Your task to perform on an android device: Open the map Image 0: 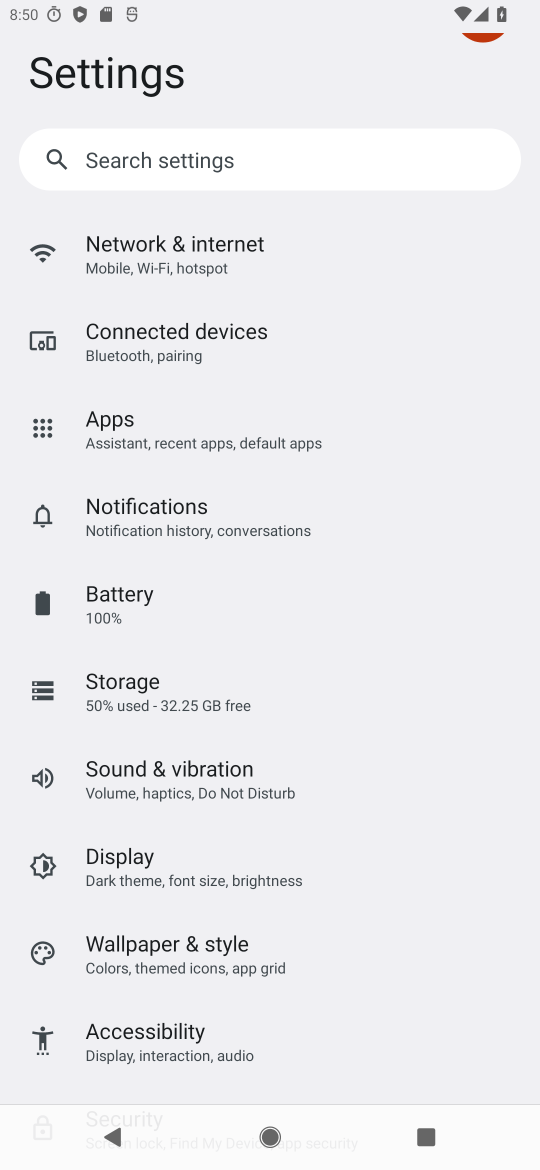
Step 0: press home button
Your task to perform on an android device: Open the map Image 1: 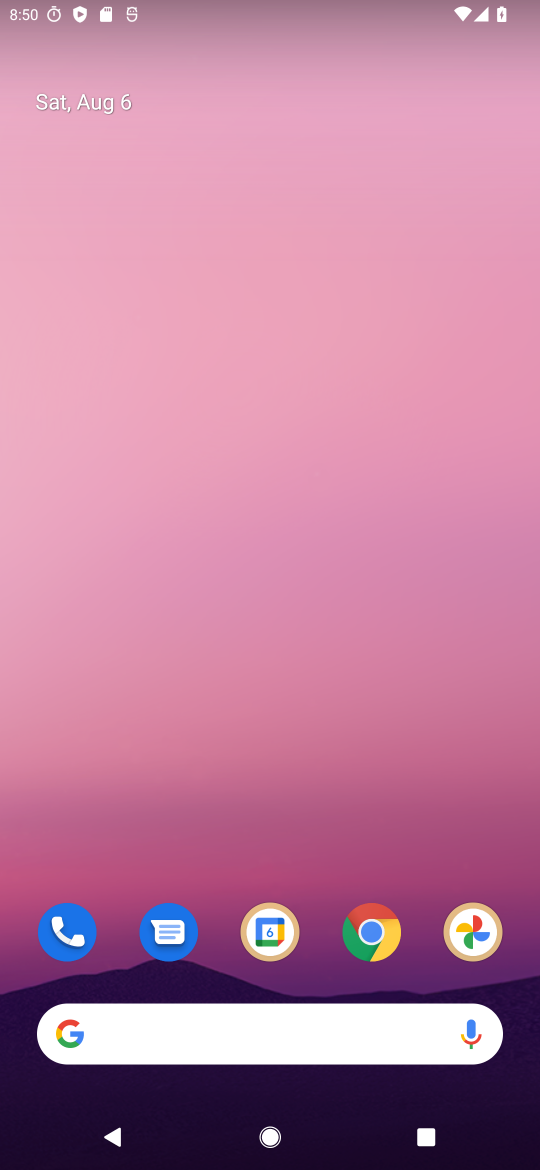
Step 1: drag from (399, 1042) to (538, 298)
Your task to perform on an android device: Open the map Image 2: 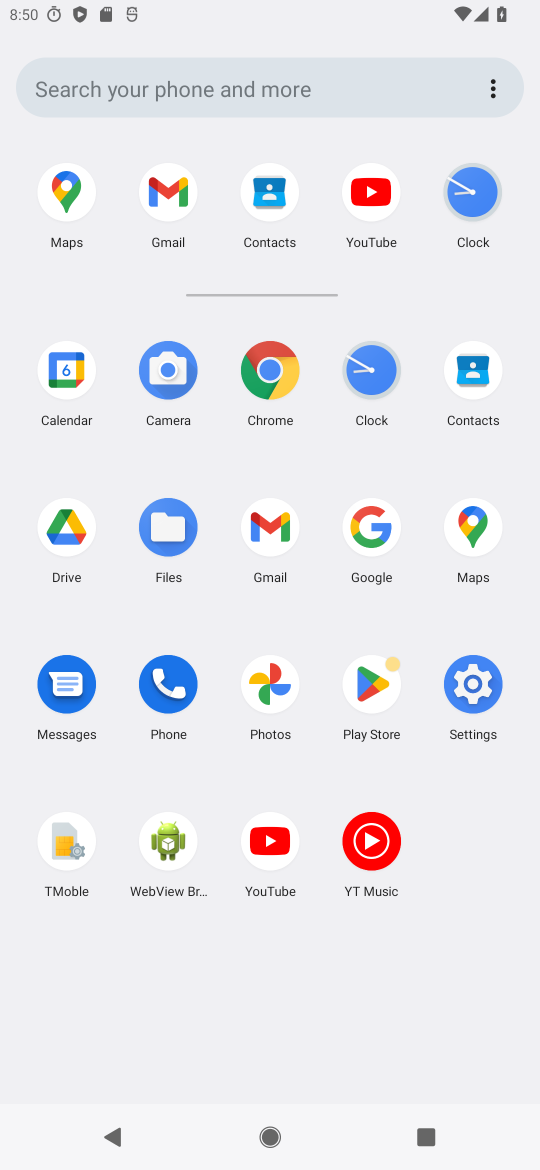
Step 2: click (477, 519)
Your task to perform on an android device: Open the map Image 3: 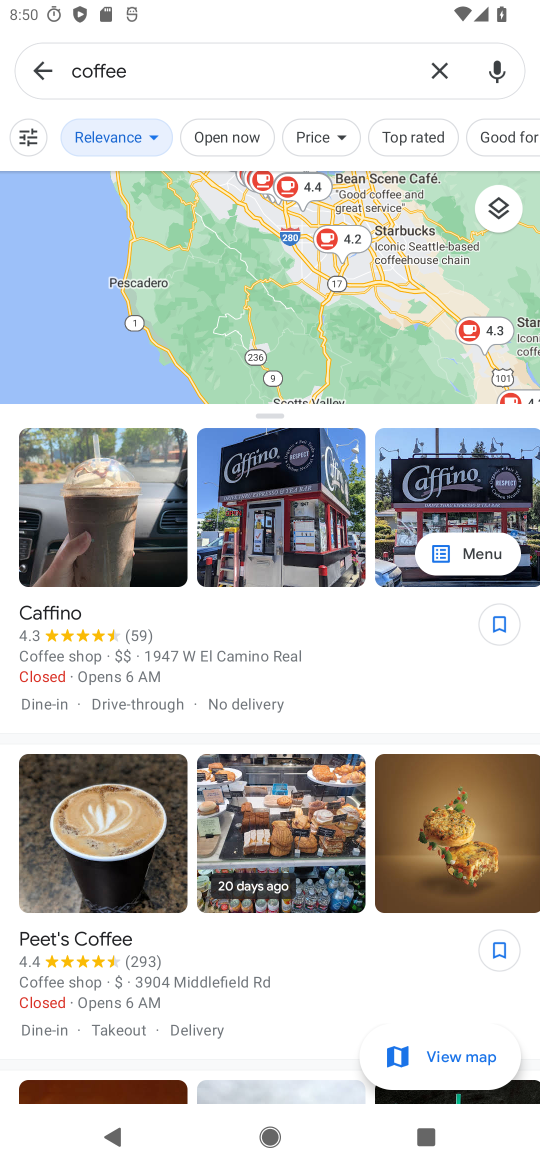
Step 3: task complete